Your task to perform on an android device: turn smart compose on in the gmail app Image 0: 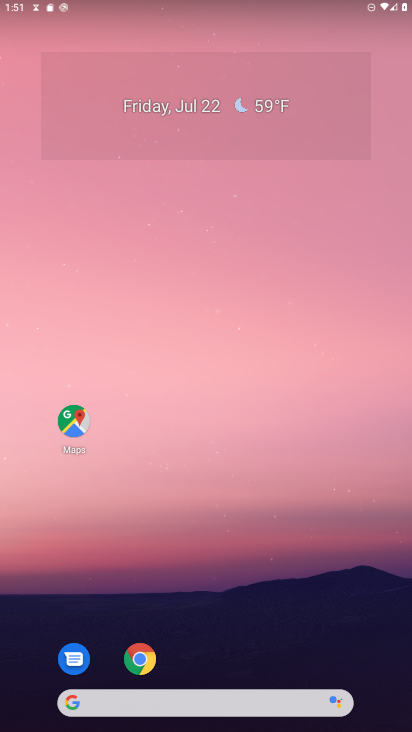
Step 0: drag from (274, 633) to (161, 32)
Your task to perform on an android device: turn smart compose on in the gmail app Image 1: 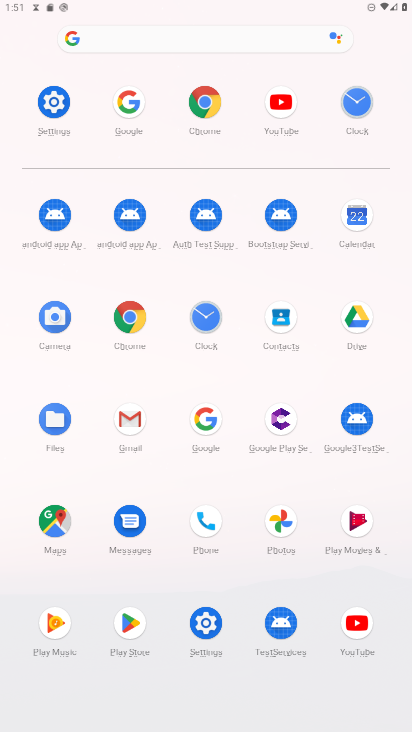
Step 1: click (136, 412)
Your task to perform on an android device: turn smart compose on in the gmail app Image 2: 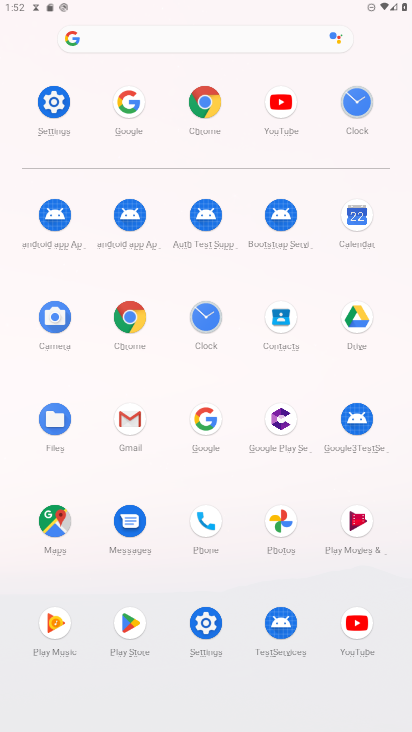
Step 2: click (134, 416)
Your task to perform on an android device: turn smart compose on in the gmail app Image 3: 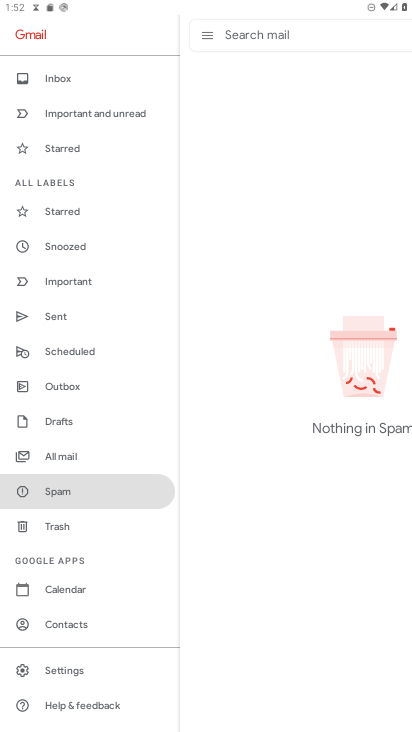
Step 3: click (50, 674)
Your task to perform on an android device: turn smart compose on in the gmail app Image 4: 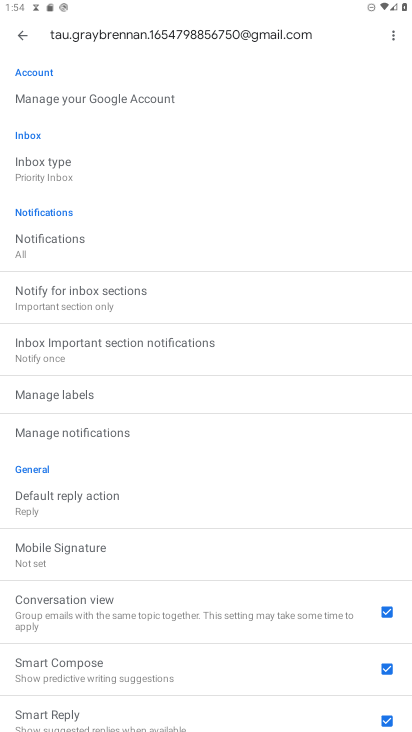
Step 4: task complete